Your task to perform on an android device: open app "Adobe Acrobat Reader" (install if not already installed) Image 0: 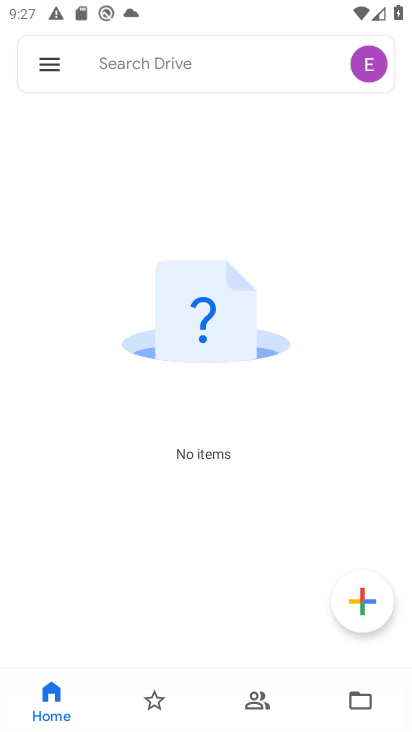
Step 0: press home button
Your task to perform on an android device: open app "Adobe Acrobat Reader" (install if not already installed) Image 1: 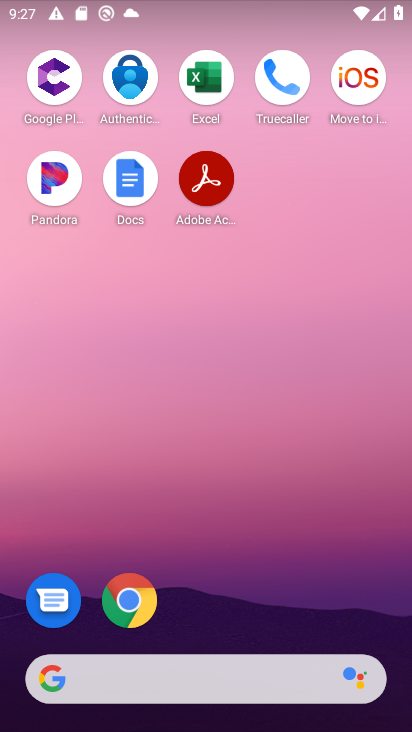
Step 1: drag from (216, 616) to (229, 260)
Your task to perform on an android device: open app "Adobe Acrobat Reader" (install if not already installed) Image 2: 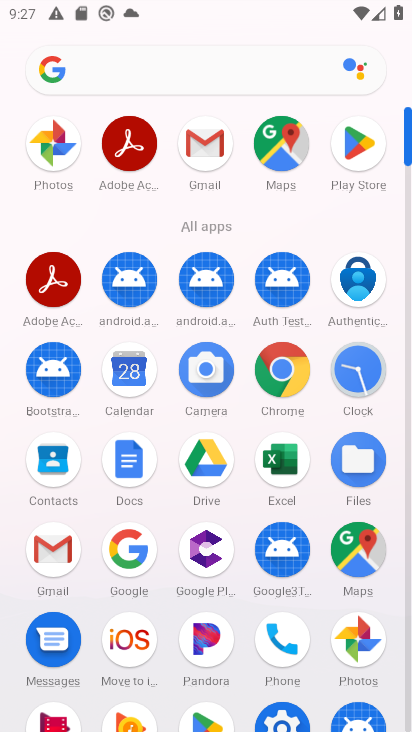
Step 2: click (353, 159)
Your task to perform on an android device: open app "Adobe Acrobat Reader" (install if not already installed) Image 3: 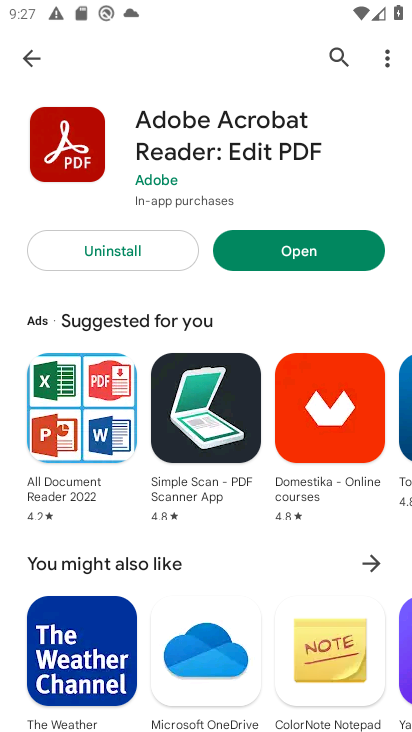
Step 3: click (282, 259)
Your task to perform on an android device: open app "Adobe Acrobat Reader" (install if not already installed) Image 4: 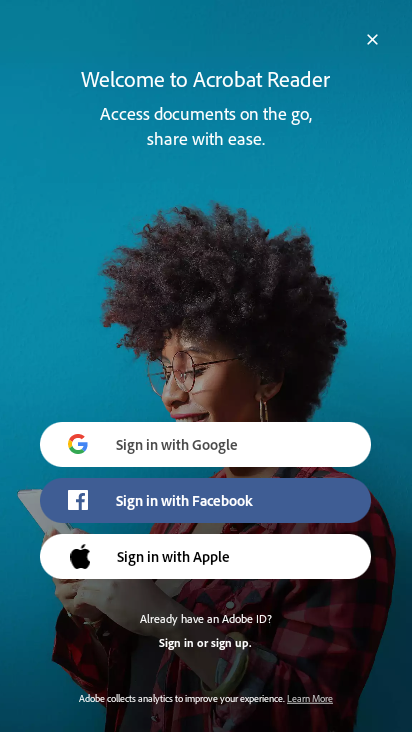
Step 4: task complete